Your task to perform on an android device: Go to sound settings Image 0: 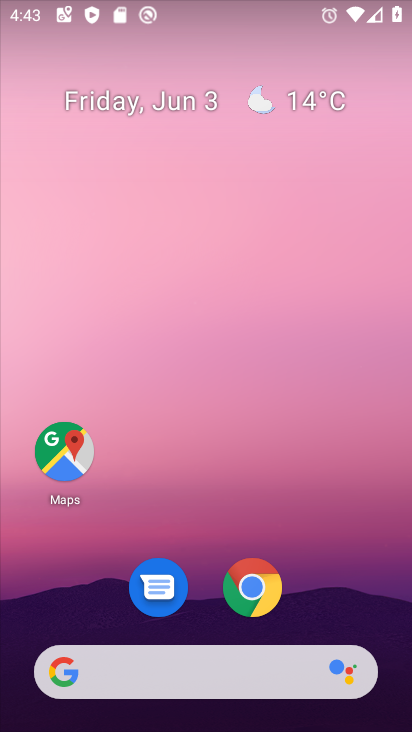
Step 0: drag from (189, 645) to (186, 390)
Your task to perform on an android device: Go to sound settings Image 1: 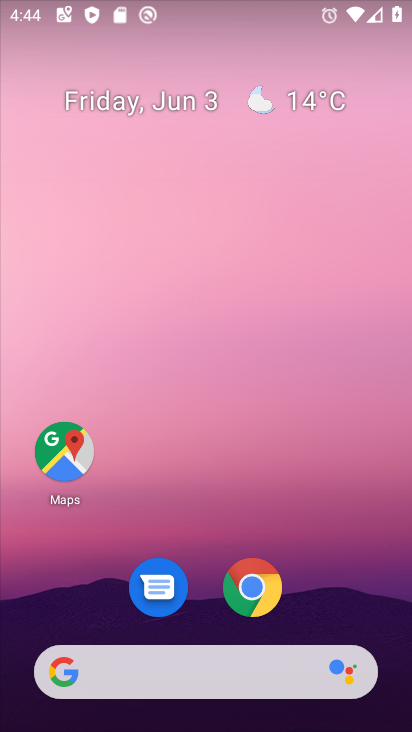
Step 1: drag from (205, 638) to (189, 284)
Your task to perform on an android device: Go to sound settings Image 2: 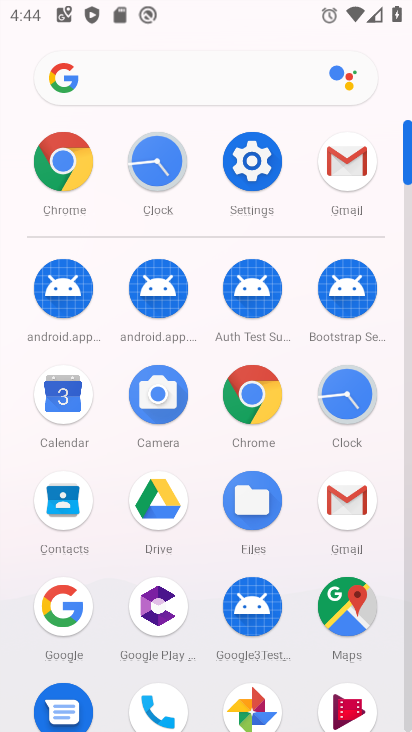
Step 2: click (248, 150)
Your task to perform on an android device: Go to sound settings Image 3: 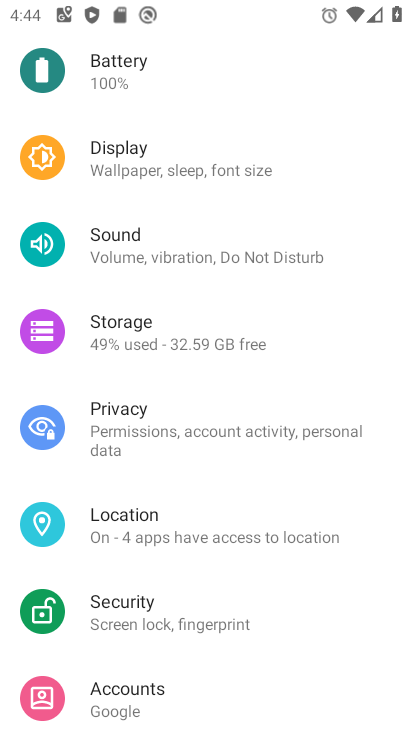
Step 3: click (137, 250)
Your task to perform on an android device: Go to sound settings Image 4: 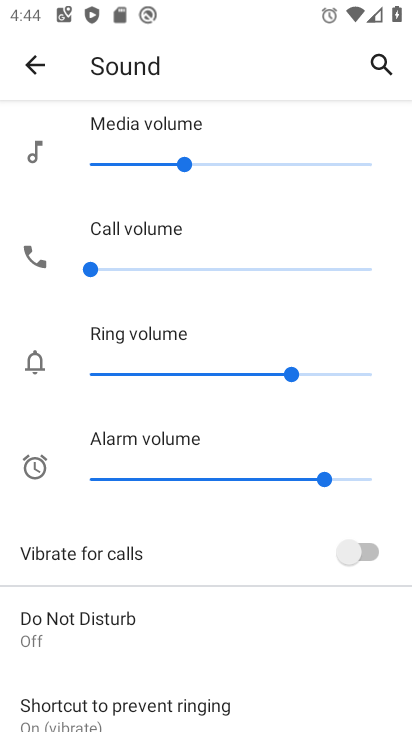
Step 4: drag from (156, 687) to (137, 258)
Your task to perform on an android device: Go to sound settings Image 5: 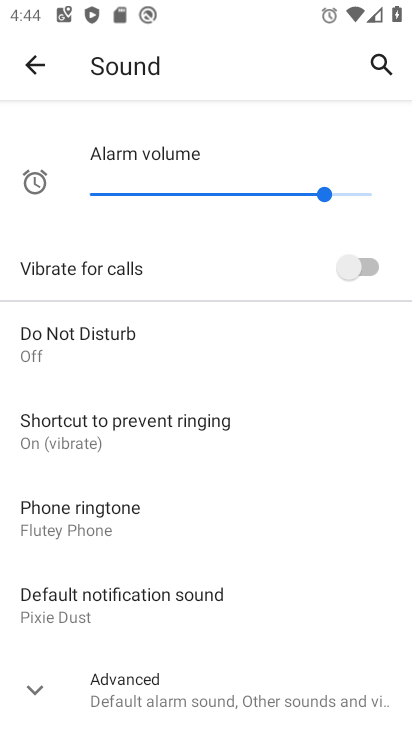
Step 5: click (121, 671)
Your task to perform on an android device: Go to sound settings Image 6: 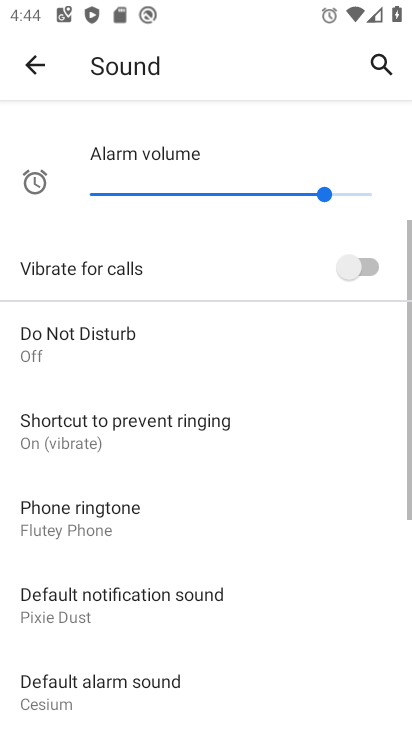
Step 6: task complete